Your task to perform on an android device: Open wifi settings Image 0: 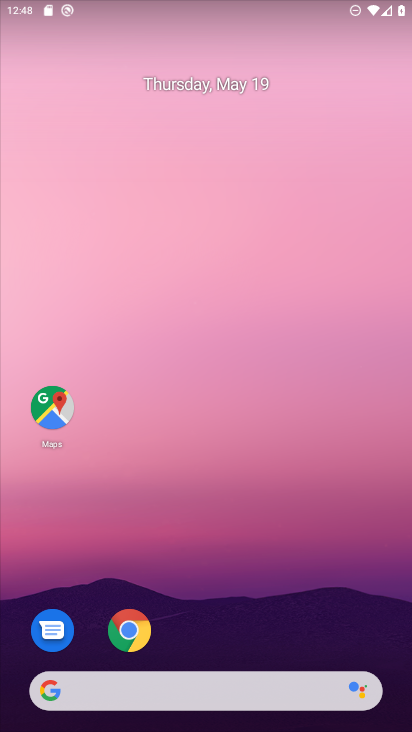
Step 0: drag from (189, 643) to (229, 192)
Your task to perform on an android device: Open wifi settings Image 1: 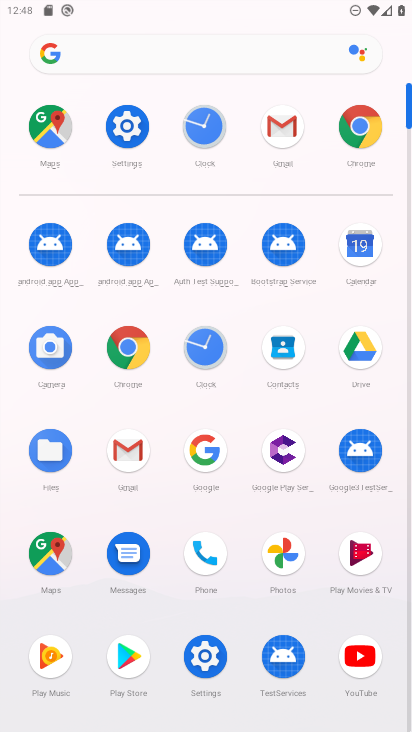
Step 1: click (130, 133)
Your task to perform on an android device: Open wifi settings Image 2: 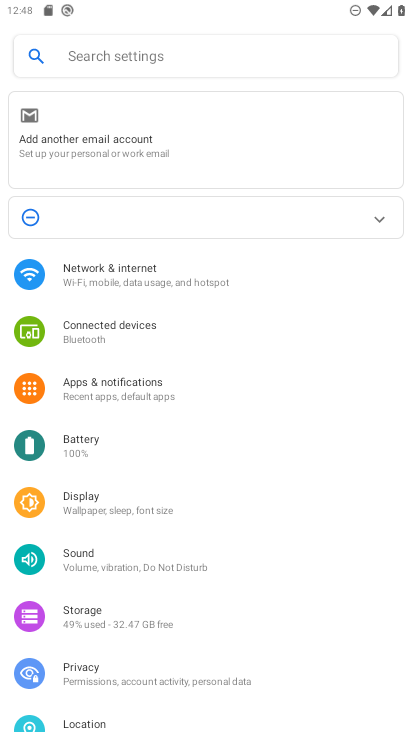
Step 2: click (106, 284)
Your task to perform on an android device: Open wifi settings Image 3: 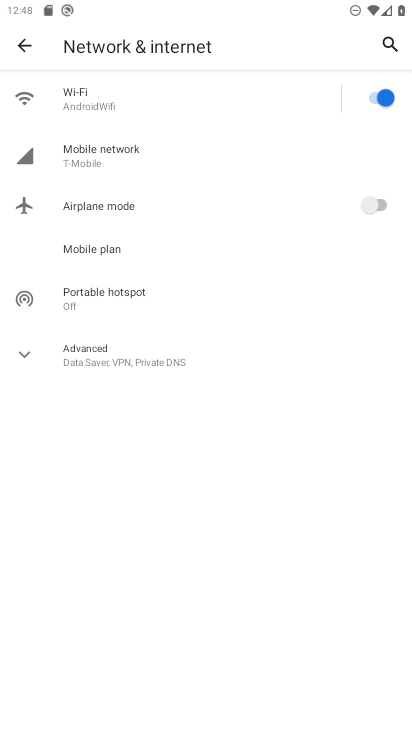
Step 3: click (154, 101)
Your task to perform on an android device: Open wifi settings Image 4: 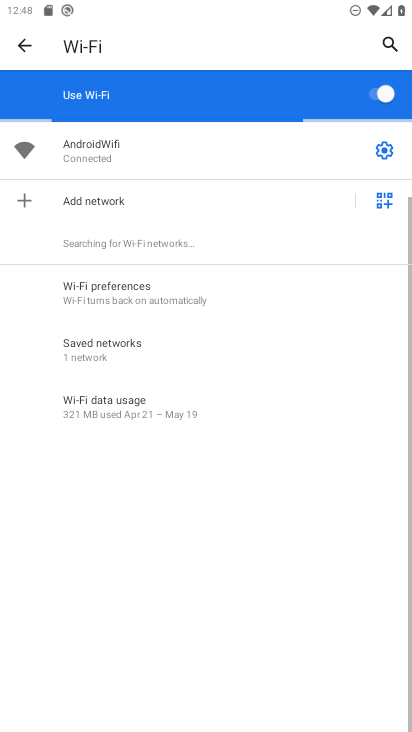
Step 4: task complete